Your task to perform on an android device: Open Yahoo.com Image 0: 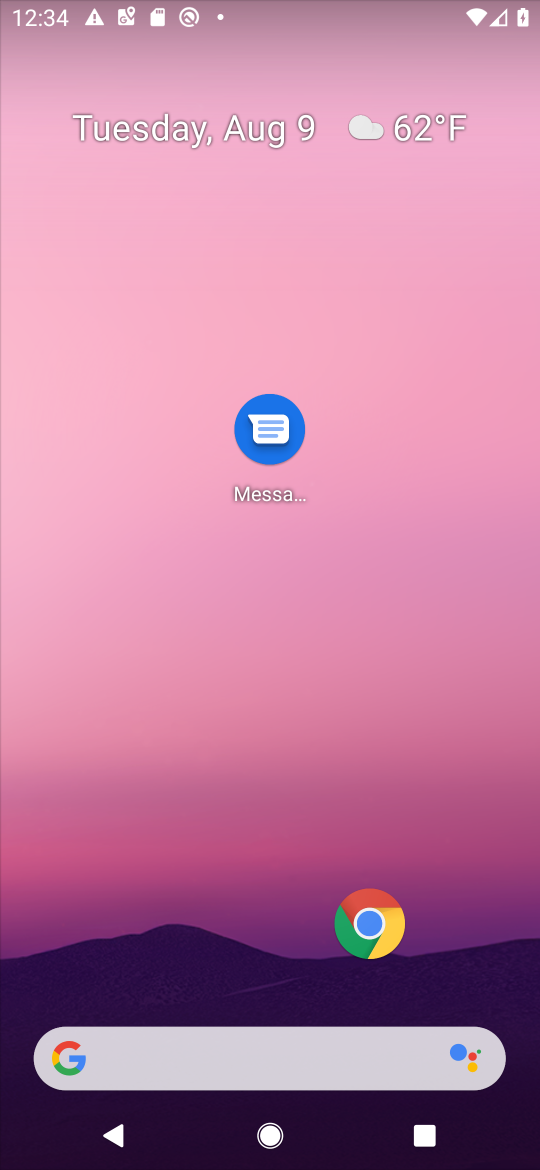
Step 0: click (170, 1061)
Your task to perform on an android device: Open Yahoo.com Image 1: 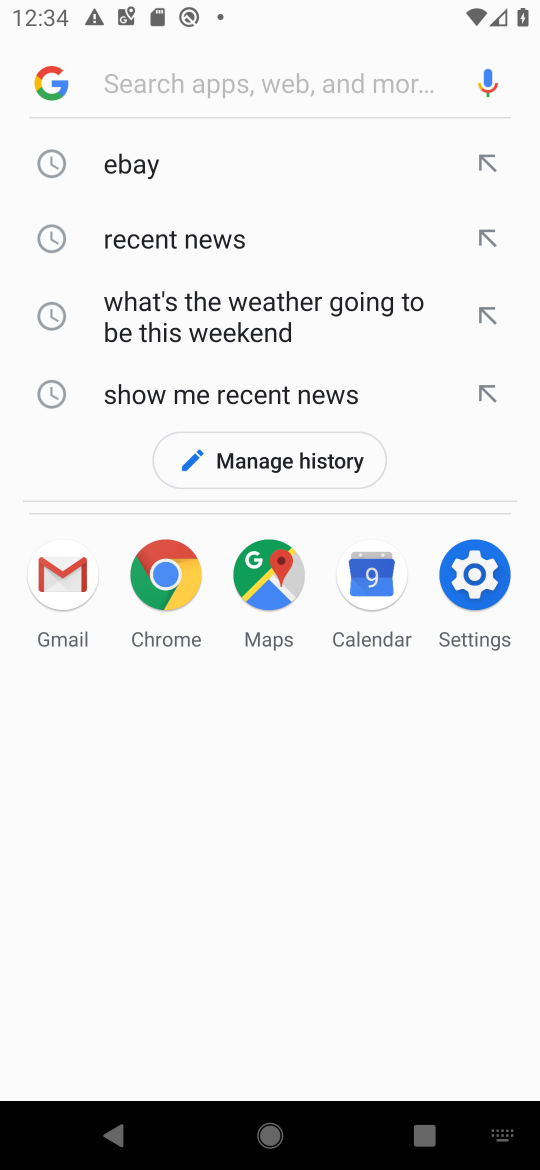
Step 1: type "Yahoo.com"
Your task to perform on an android device: Open Yahoo.com Image 2: 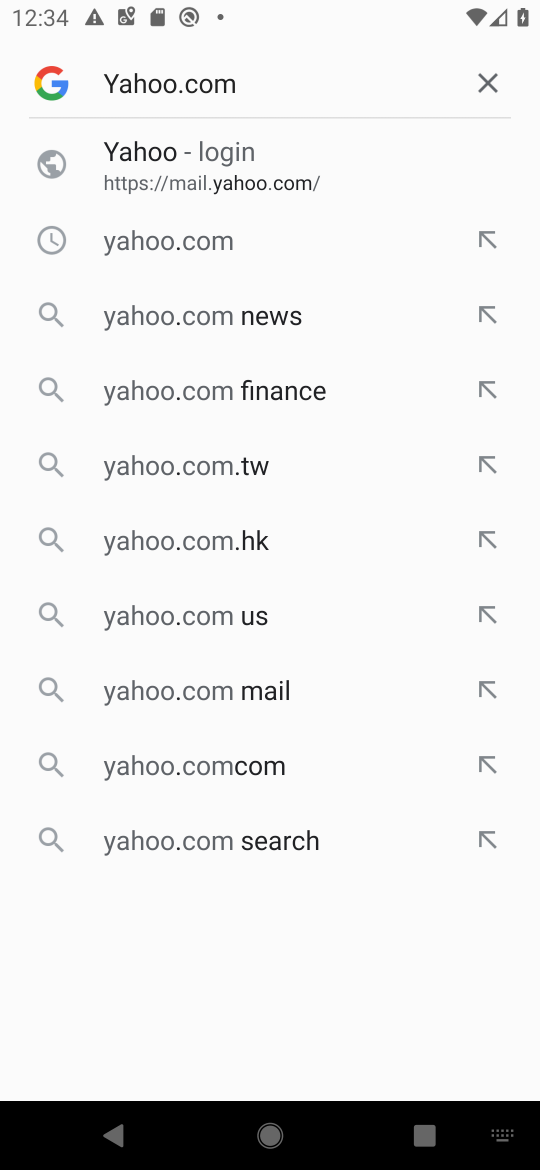
Step 2: type ""
Your task to perform on an android device: Open Yahoo.com Image 3: 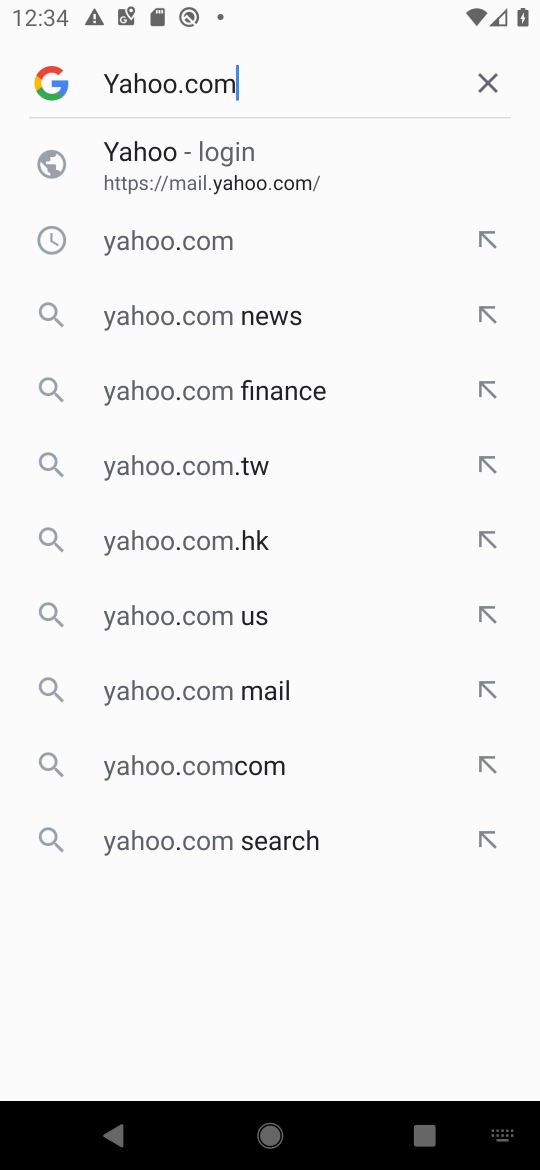
Step 3: type ""
Your task to perform on an android device: Open Yahoo.com Image 4: 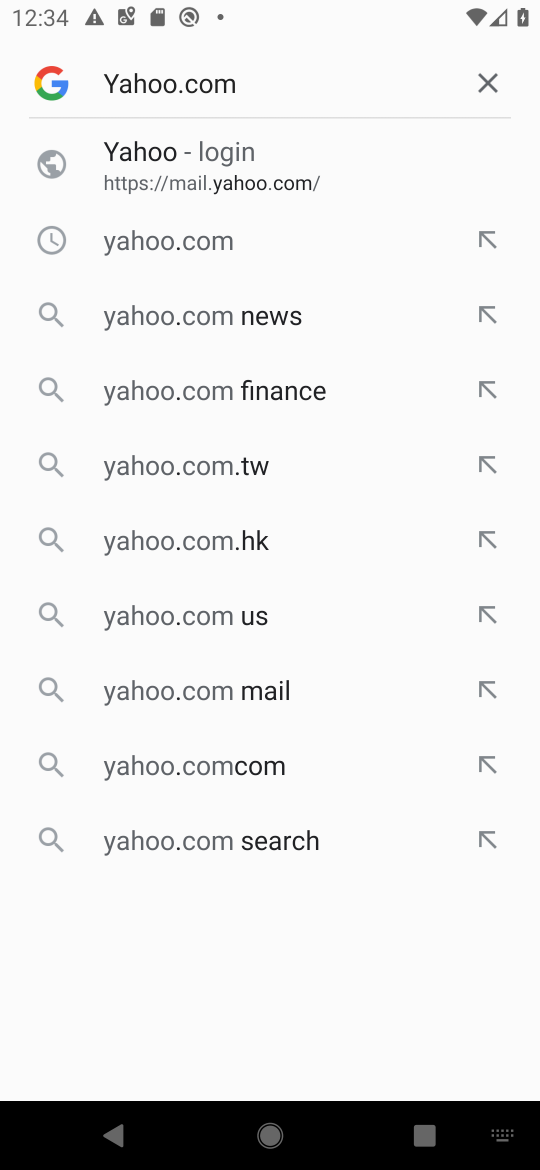
Step 4: task complete